Your task to perform on an android device: Open Android settings Image 0: 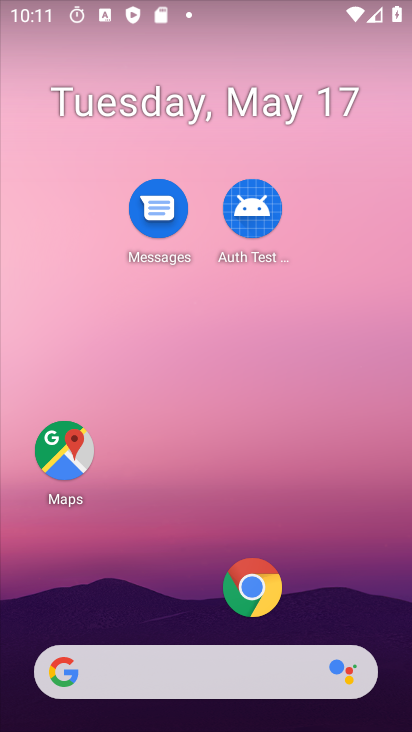
Step 0: drag from (200, 626) to (195, 109)
Your task to perform on an android device: Open Android settings Image 1: 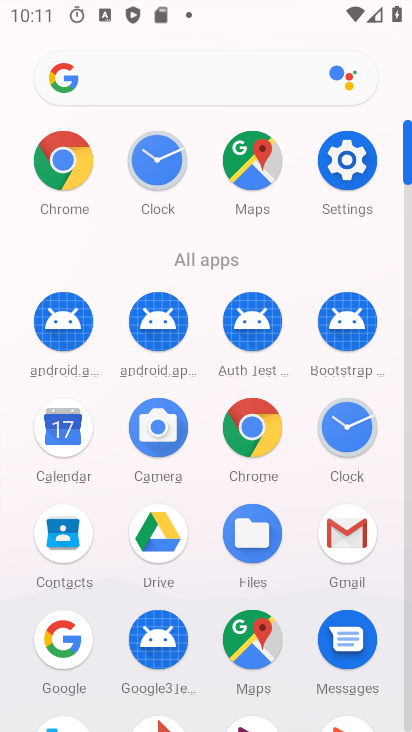
Step 1: click (354, 160)
Your task to perform on an android device: Open Android settings Image 2: 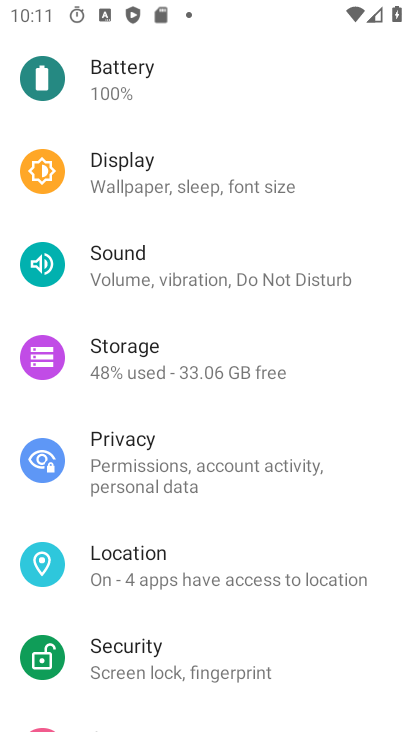
Step 2: task complete